Your task to perform on an android device: show emergency info Image 0: 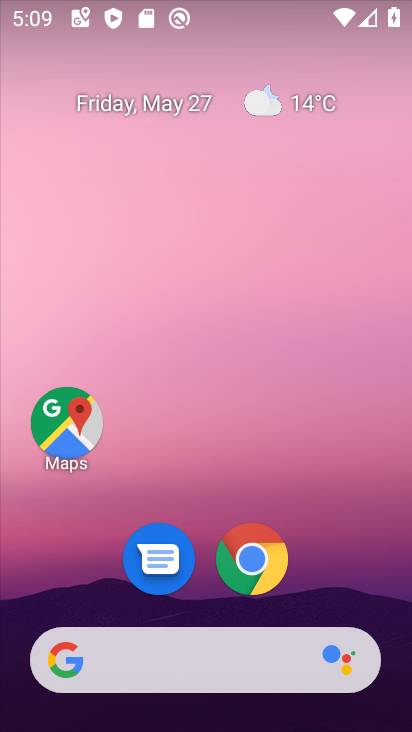
Step 0: drag from (174, 492) to (120, 31)
Your task to perform on an android device: show emergency info Image 1: 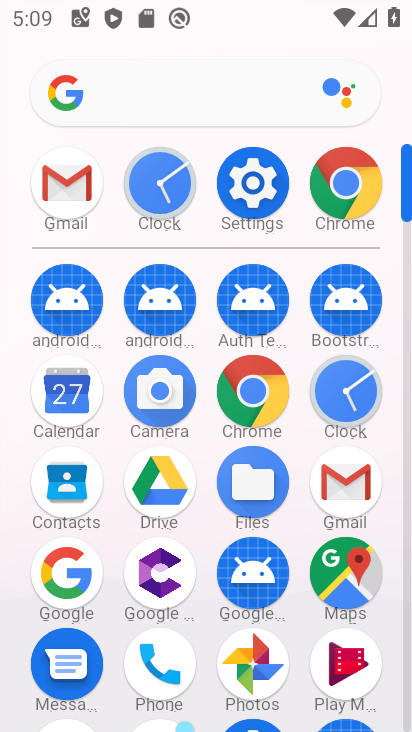
Step 1: click (253, 171)
Your task to perform on an android device: show emergency info Image 2: 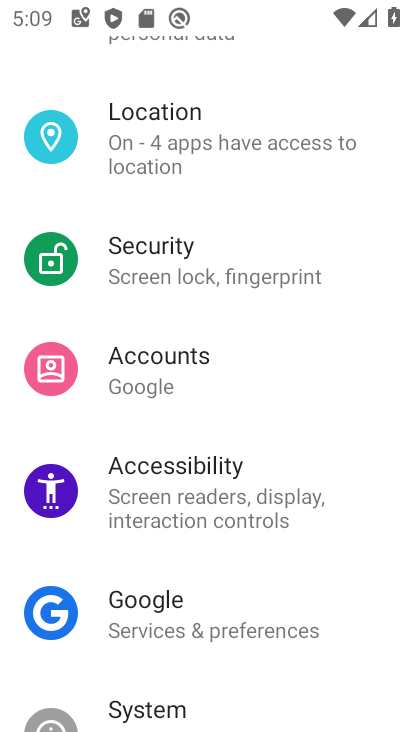
Step 2: drag from (230, 617) to (240, 215)
Your task to perform on an android device: show emergency info Image 3: 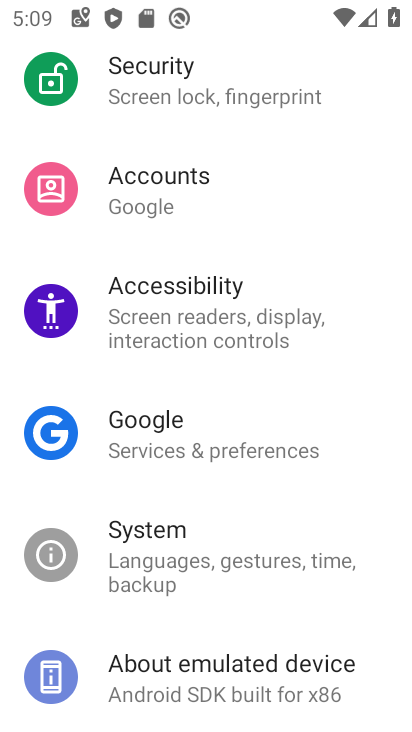
Step 3: click (151, 683)
Your task to perform on an android device: show emergency info Image 4: 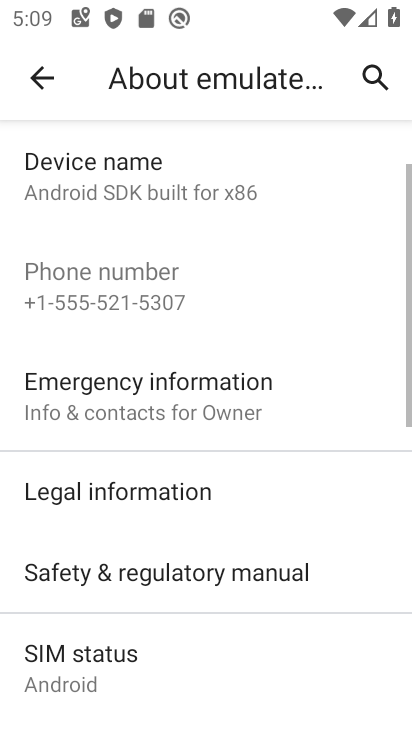
Step 4: click (129, 404)
Your task to perform on an android device: show emergency info Image 5: 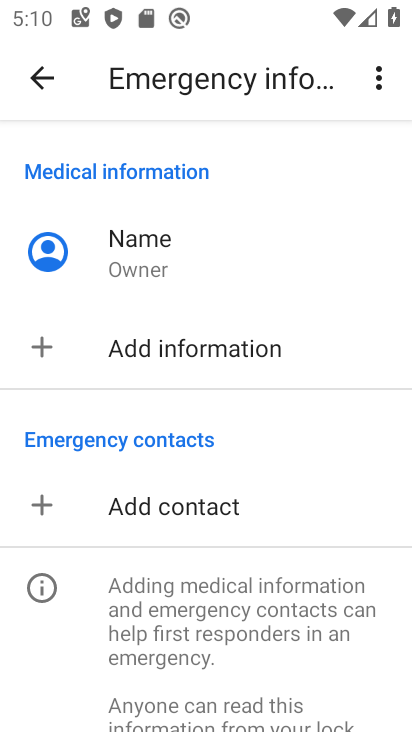
Step 5: task complete